Your task to perform on an android device: Open Youtube and go to the subscriptions tab Image 0: 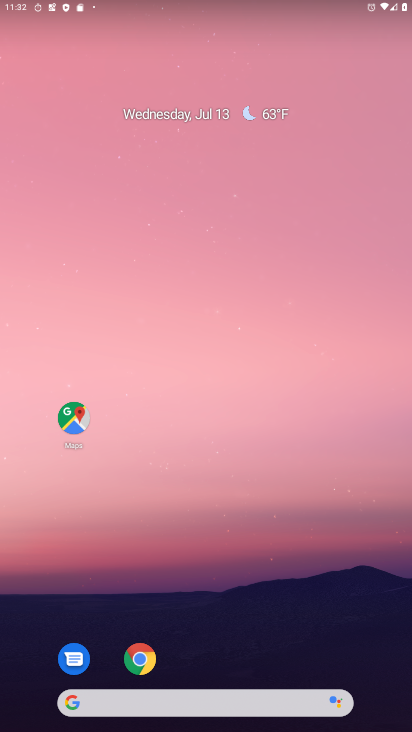
Step 0: drag from (300, 531) to (245, 83)
Your task to perform on an android device: Open Youtube and go to the subscriptions tab Image 1: 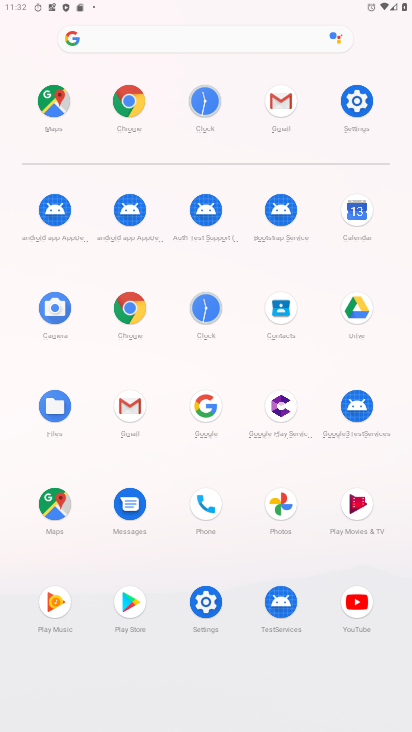
Step 1: click (356, 603)
Your task to perform on an android device: Open Youtube and go to the subscriptions tab Image 2: 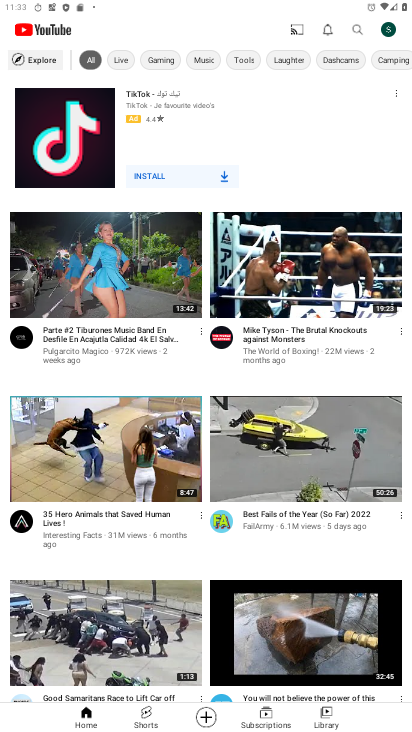
Step 2: click (268, 723)
Your task to perform on an android device: Open Youtube and go to the subscriptions tab Image 3: 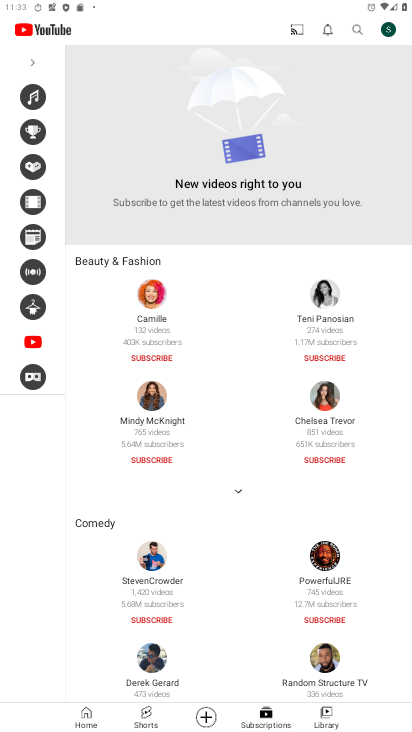
Step 3: task complete